Your task to perform on an android device: Open Maps and search for coffee Image 0: 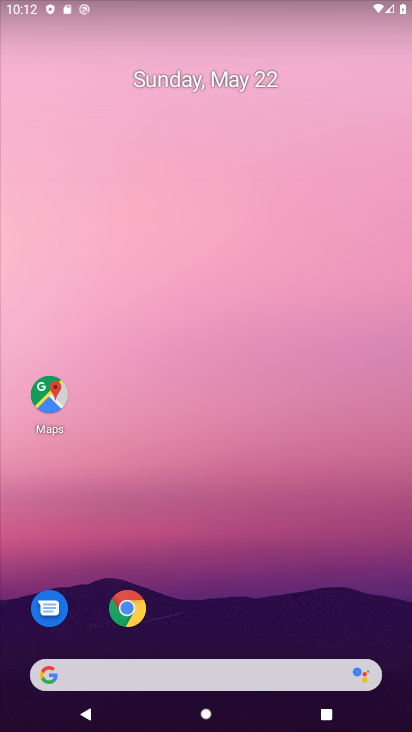
Step 0: click (42, 378)
Your task to perform on an android device: Open Maps and search for coffee Image 1: 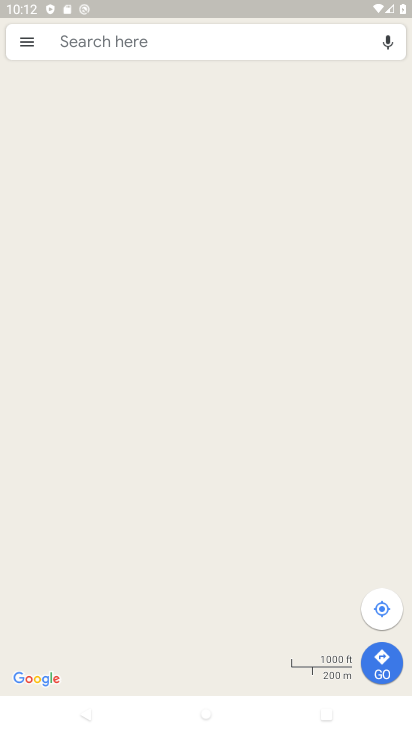
Step 1: click (150, 41)
Your task to perform on an android device: Open Maps and search for coffee Image 2: 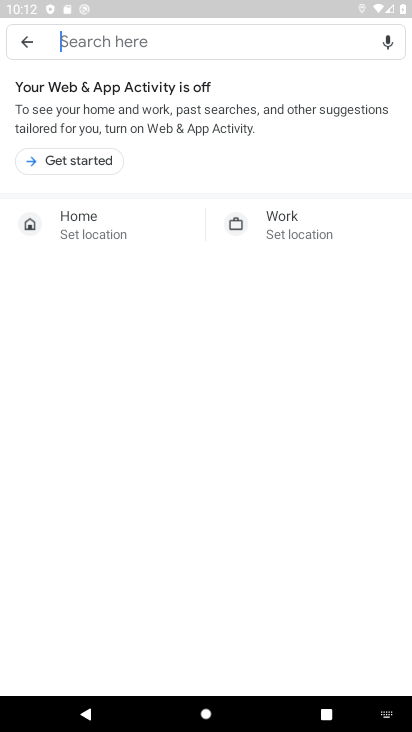
Step 2: type "coffee"
Your task to perform on an android device: Open Maps and search for coffee Image 3: 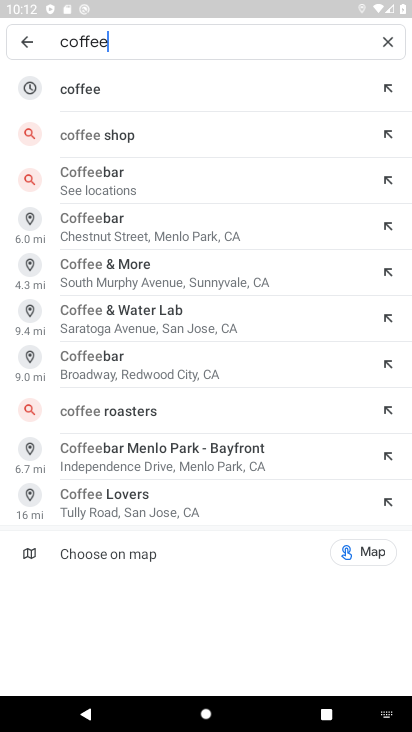
Step 3: task complete